Your task to perform on an android device: turn pop-ups on in chrome Image 0: 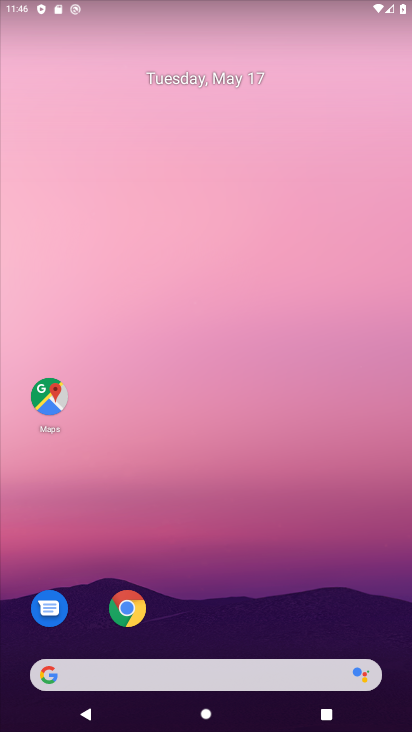
Step 0: click (129, 628)
Your task to perform on an android device: turn pop-ups on in chrome Image 1: 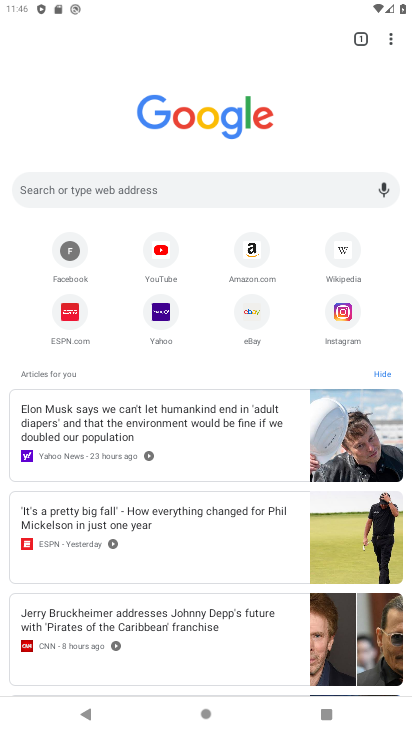
Step 1: click (392, 32)
Your task to perform on an android device: turn pop-ups on in chrome Image 2: 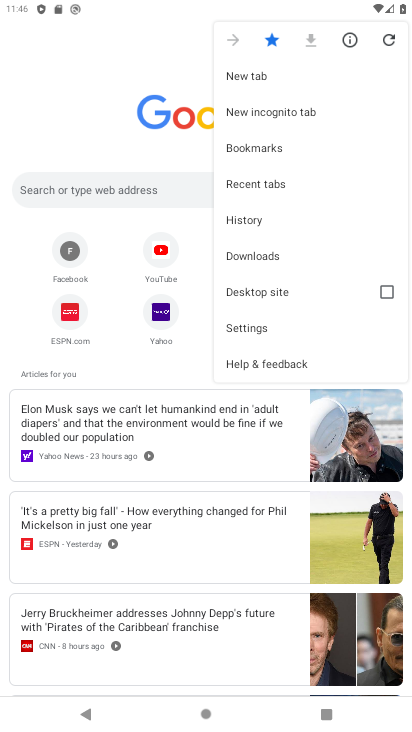
Step 2: click (273, 328)
Your task to perform on an android device: turn pop-ups on in chrome Image 3: 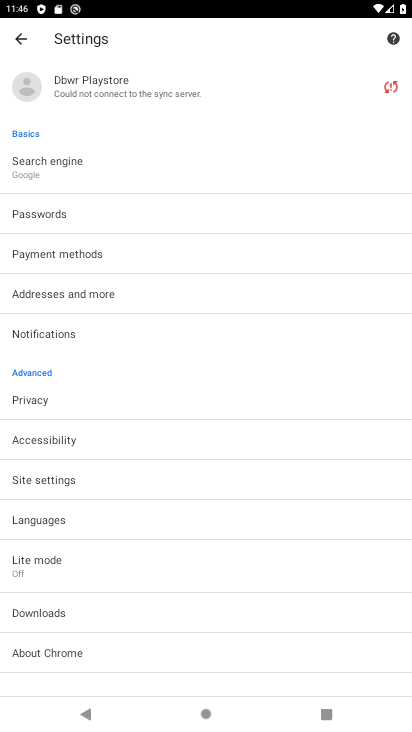
Step 3: click (48, 479)
Your task to perform on an android device: turn pop-ups on in chrome Image 4: 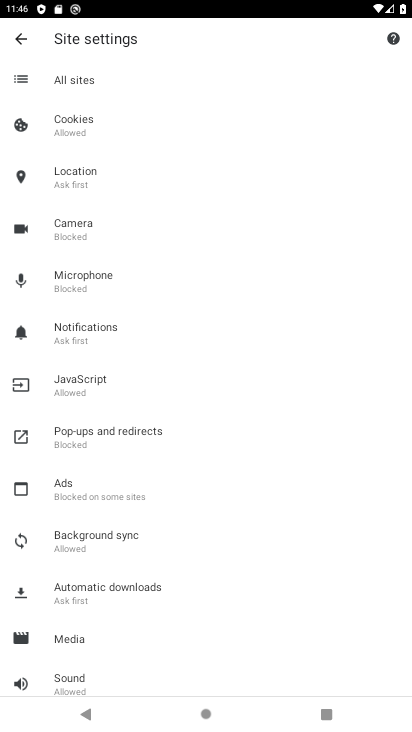
Step 4: click (112, 438)
Your task to perform on an android device: turn pop-ups on in chrome Image 5: 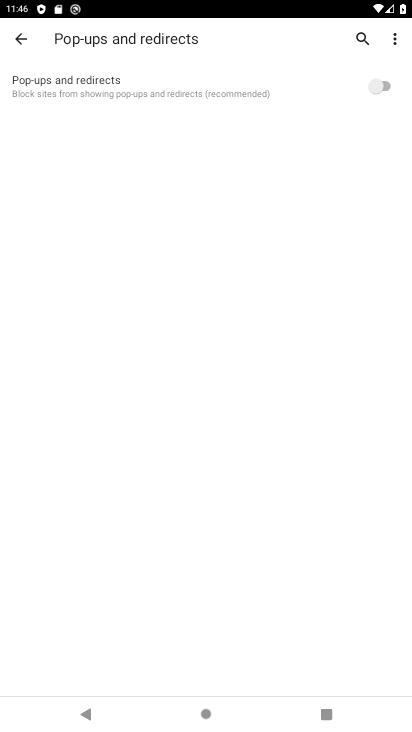
Step 5: click (389, 86)
Your task to perform on an android device: turn pop-ups on in chrome Image 6: 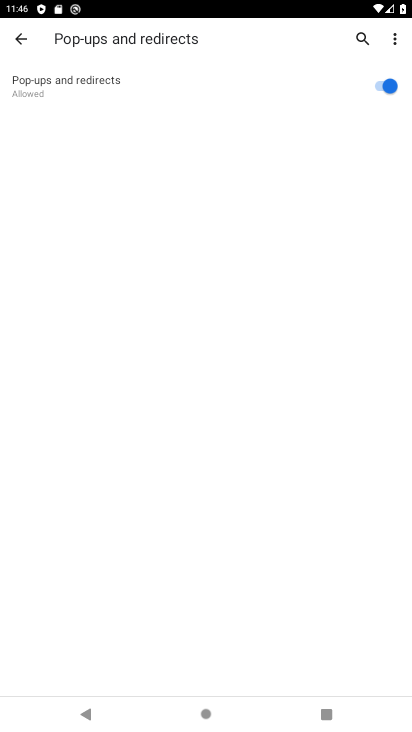
Step 6: task complete